Your task to perform on an android device: Go to battery settings Image 0: 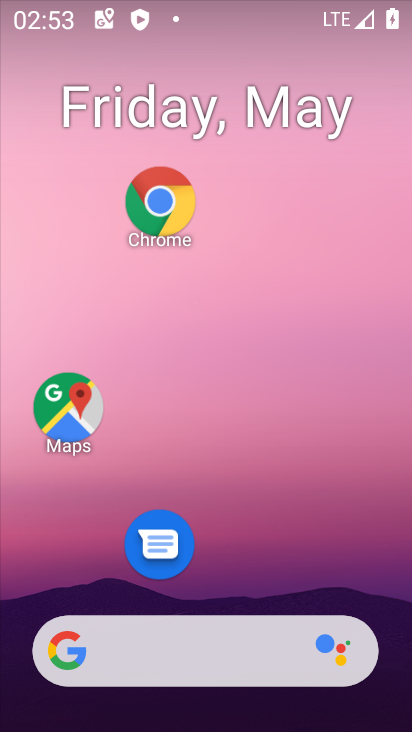
Step 0: drag from (267, 536) to (249, 186)
Your task to perform on an android device: Go to battery settings Image 1: 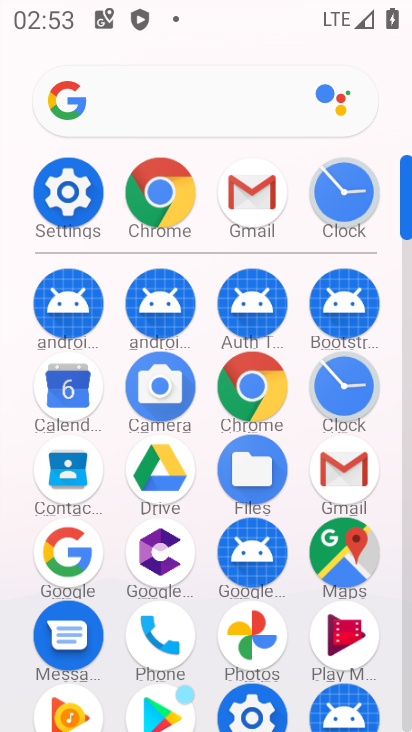
Step 1: click (269, 703)
Your task to perform on an android device: Go to battery settings Image 2: 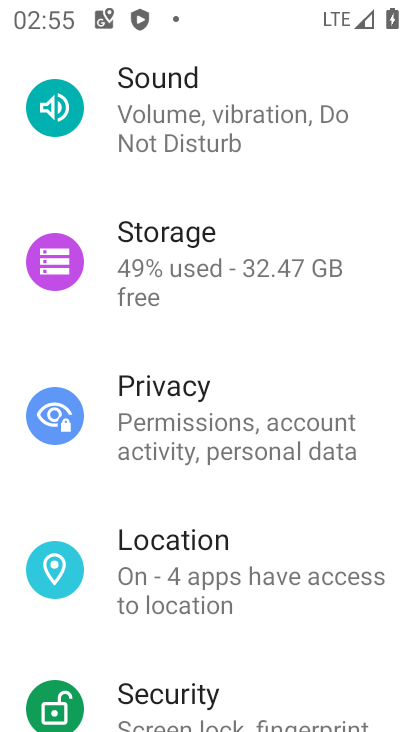
Step 2: drag from (200, 356) to (248, 642)
Your task to perform on an android device: Go to battery settings Image 3: 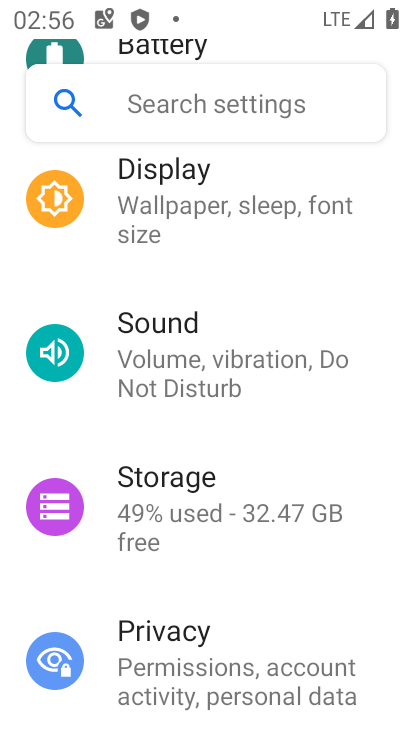
Step 3: drag from (195, 310) to (272, 619)
Your task to perform on an android device: Go to battery settings Image 4: 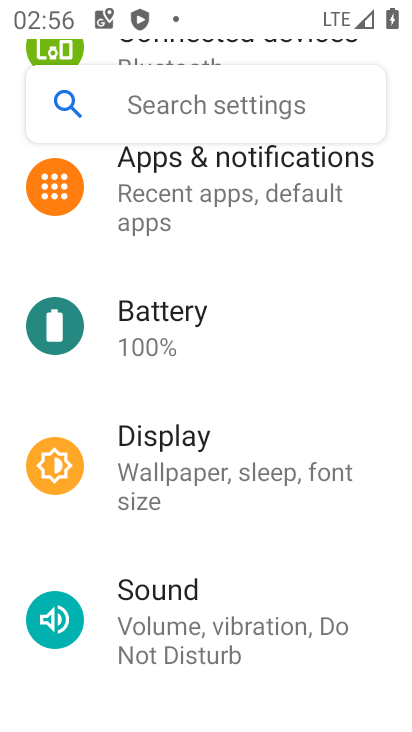
Step 4: click (232, 331)
Your task to perform on an android device: Go to battery settings Image 5: 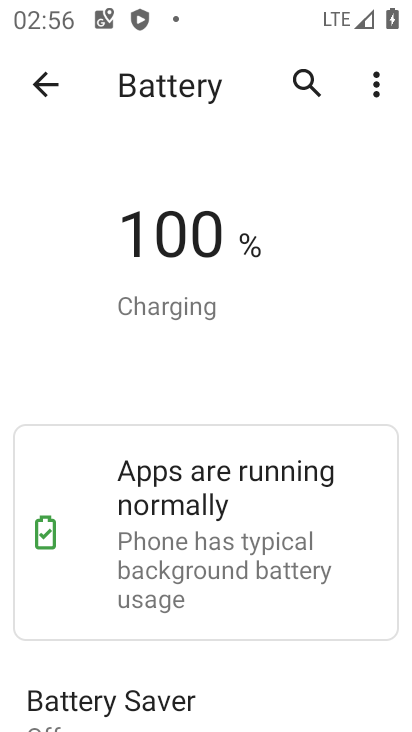
Step 5: task complete